Your task to perform on an android device: What is the recent news? Image 0: 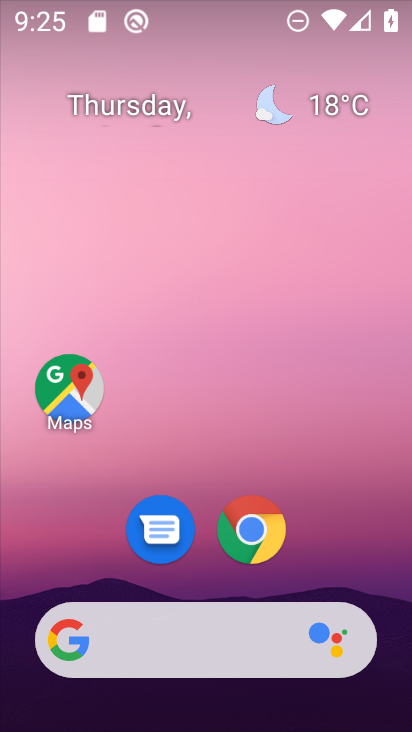
Step 0: drag from (44, 312) to (384, 331)
Your task to perform on an android device: What is the recent news? Image 1: 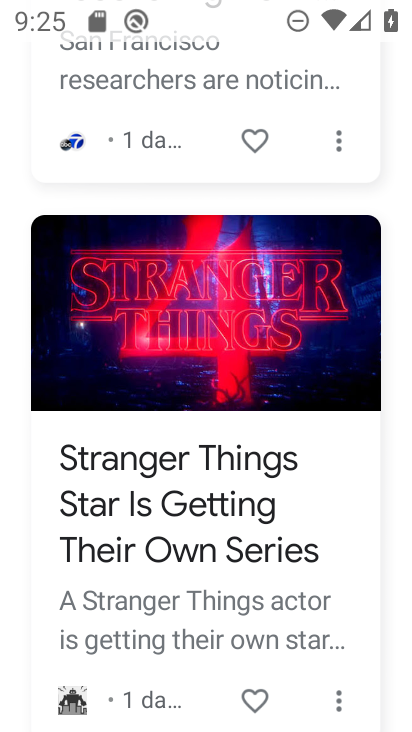
Step 1: task complete